Your task to perform on an android device: How big is the earth? Image 0: 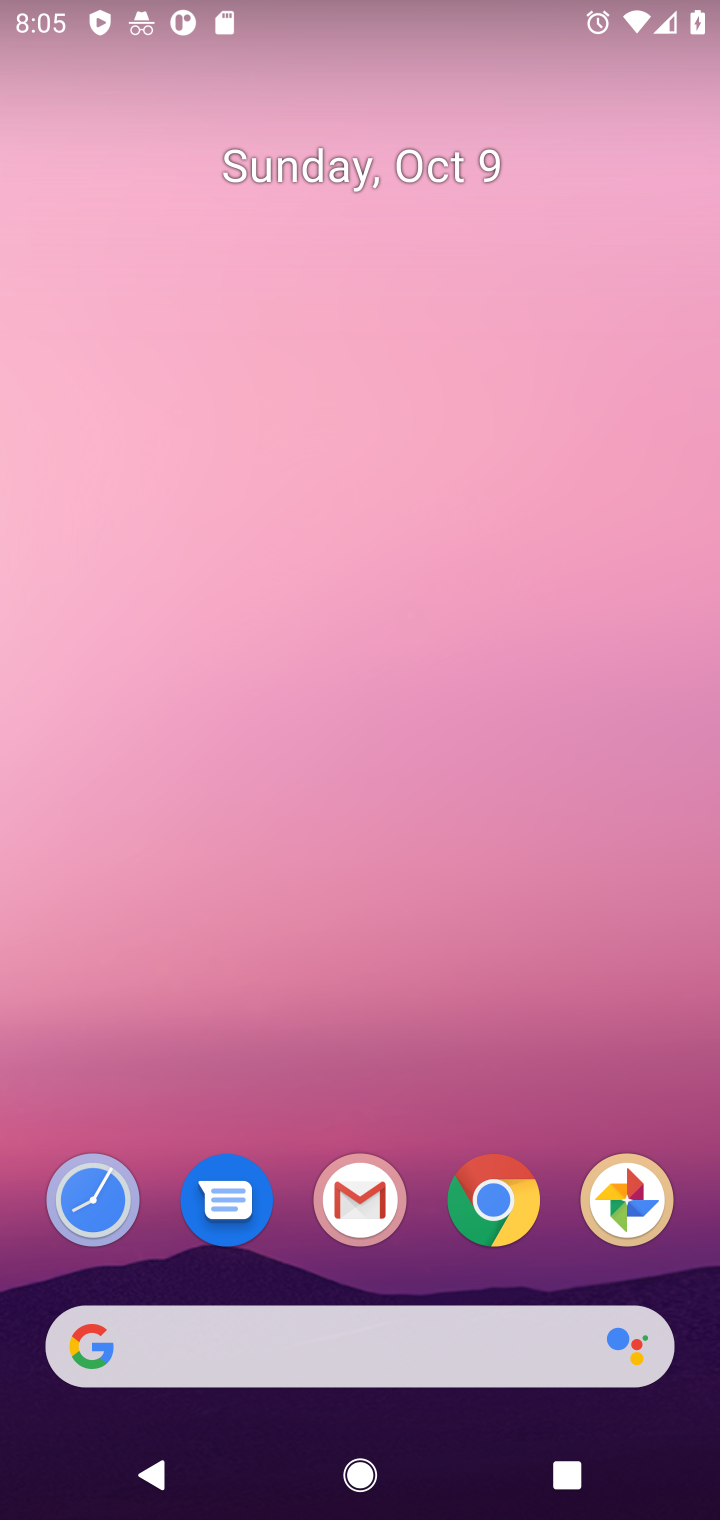
Step 0: click (488, 1200)
Your task to perform on an android device: How big is the earth? Image 1: 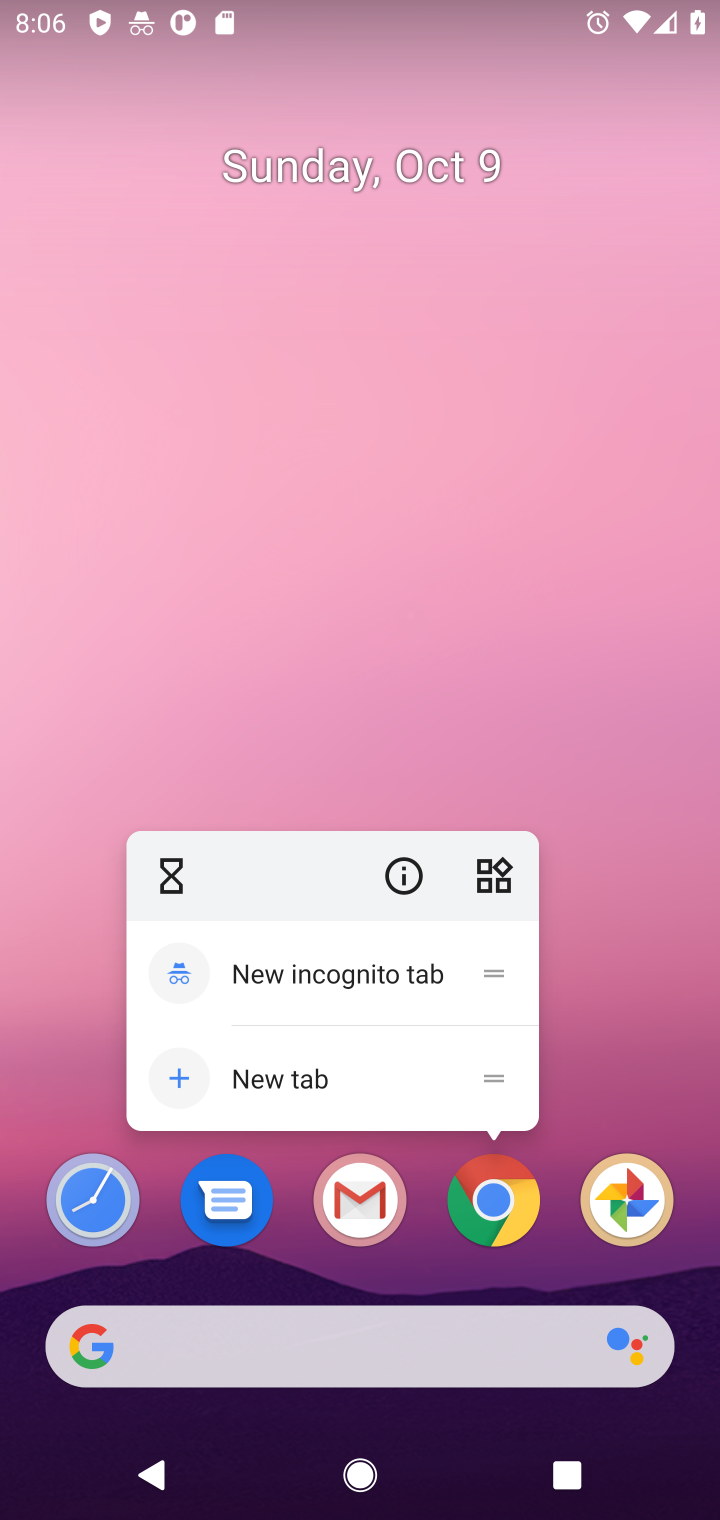
Step 1: click (516, 1220)
Your task to perform on an android device: How big is the earth? Image 2: 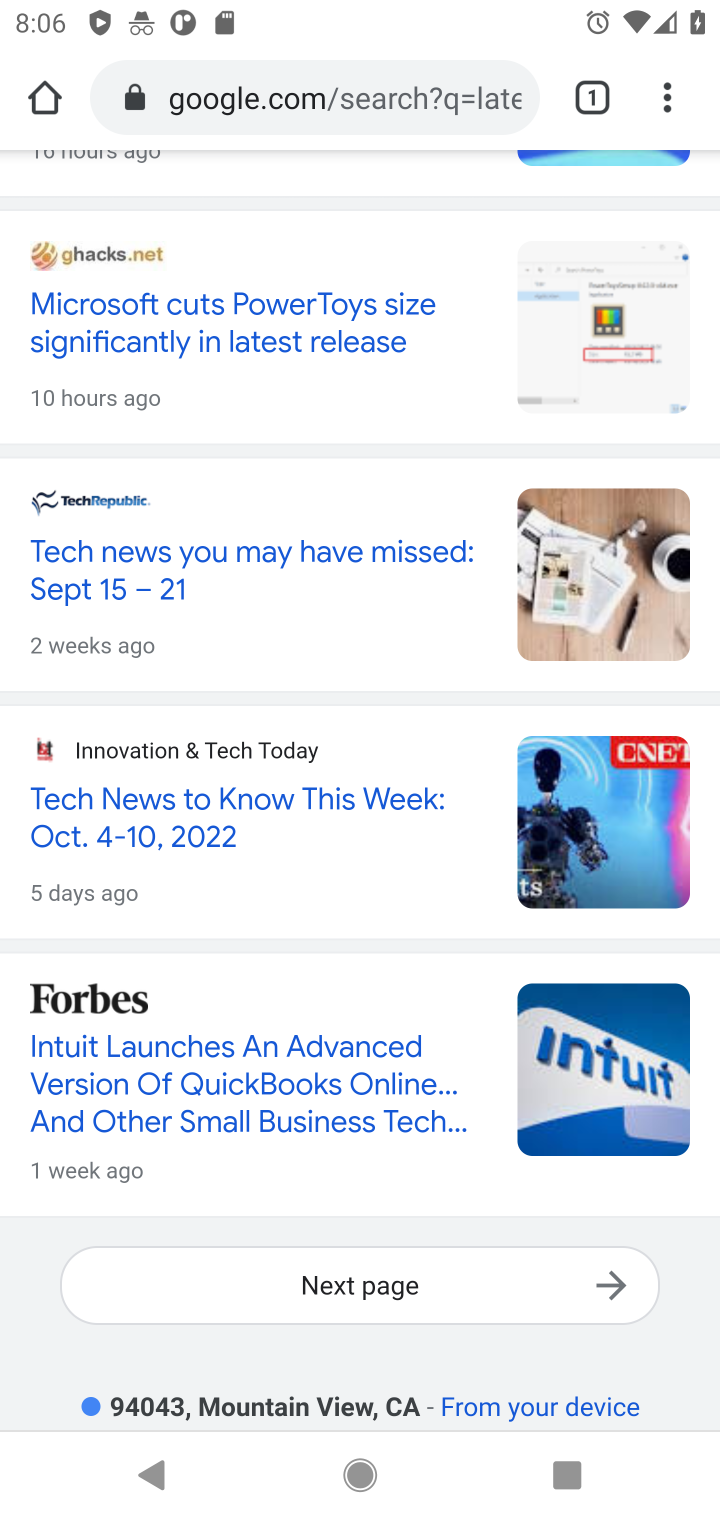
Step 2: click (321, 107)
Your task to perform on an android device: How big is the earth? Image 3: 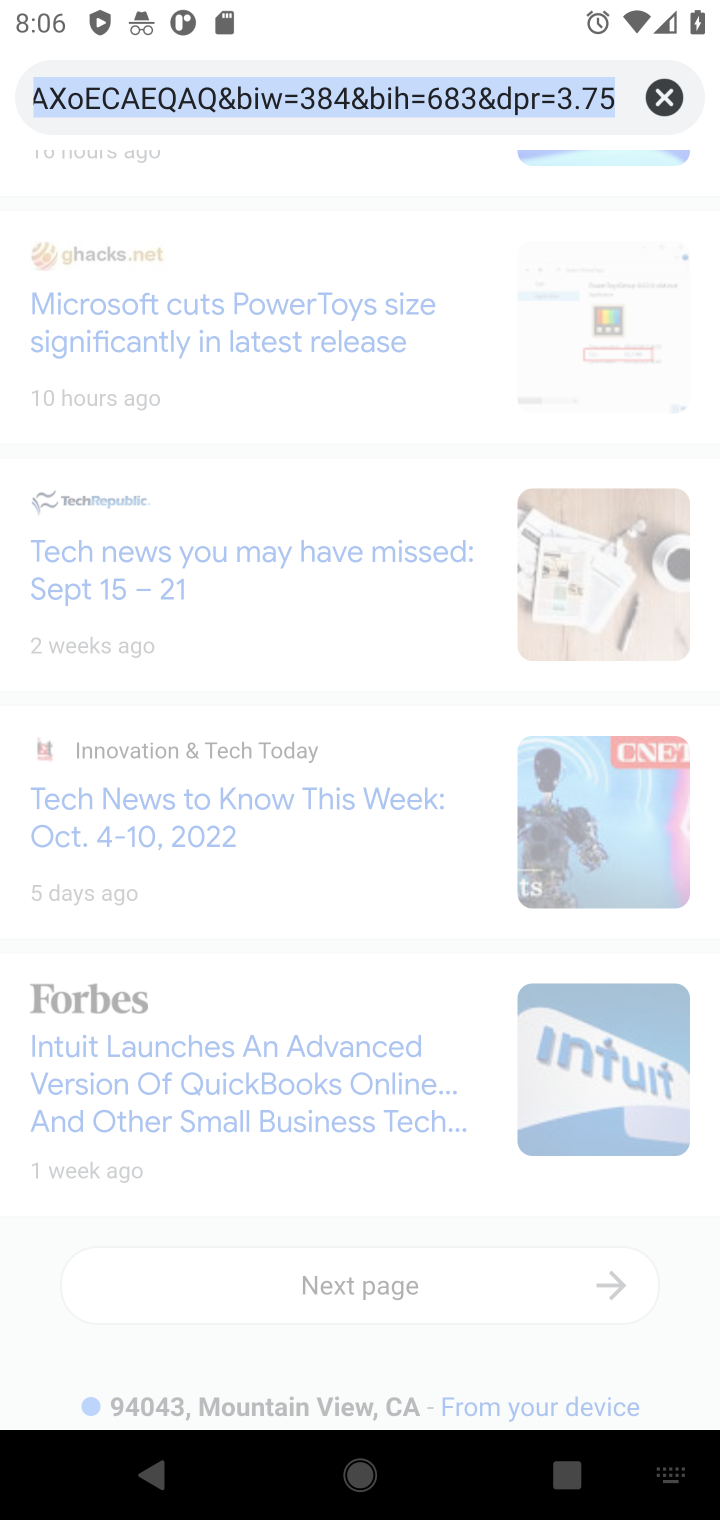
Step 3: type "How big is the earth"
Your task to perform on an android device: How big is the earth? Image 4: 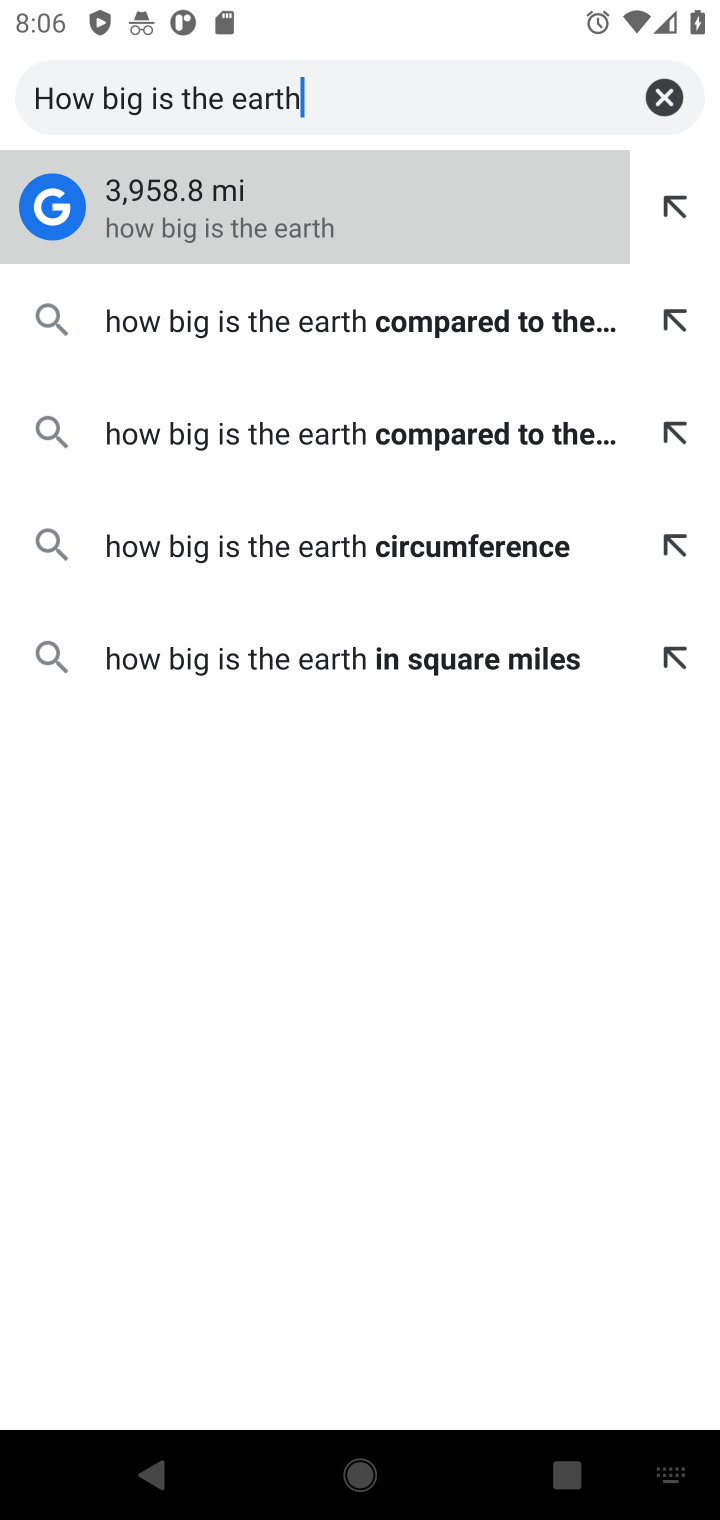
Step 4: click (388, 219)
Your task to perform on an android device: How big is the earth? Image 5: 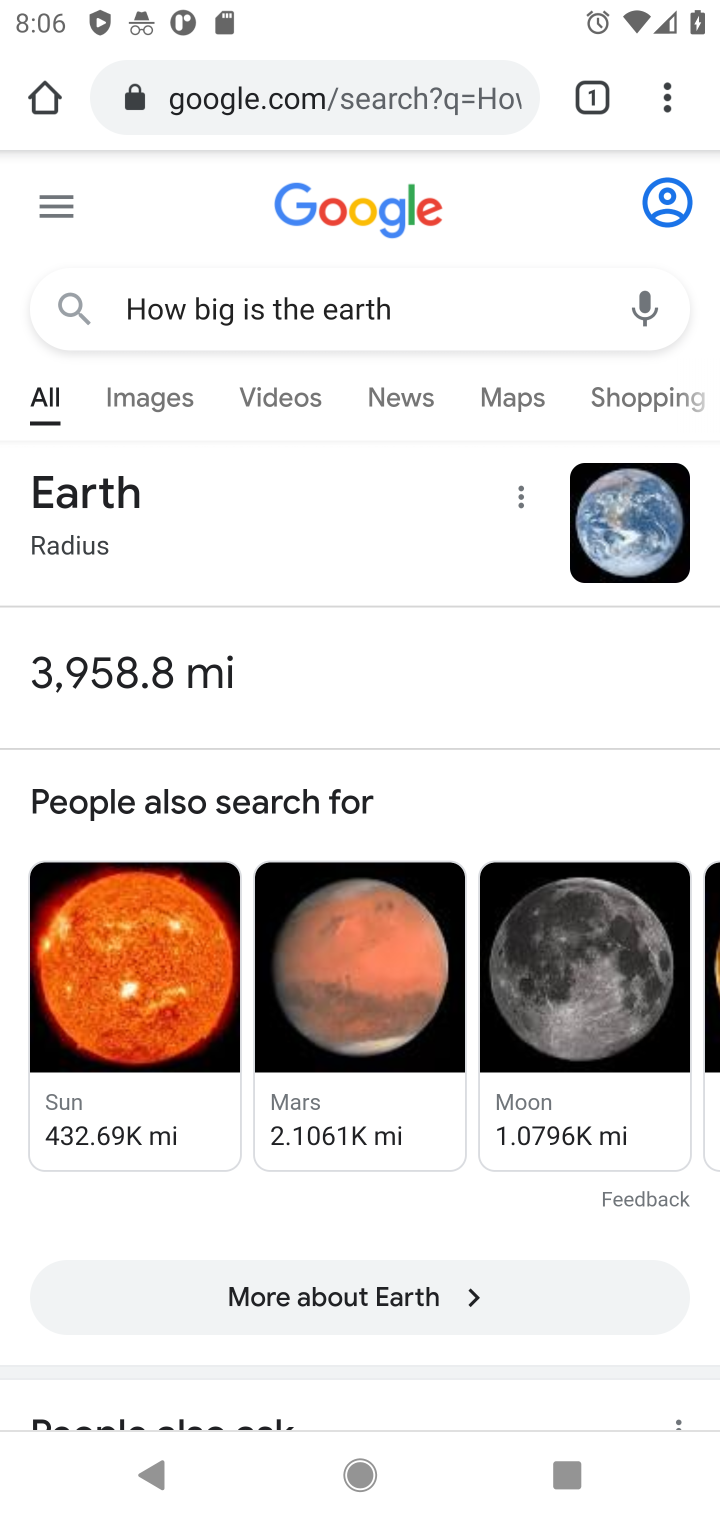
Step 5: task complete